Your task to perform on an android device: toggle improve location accuracy Image 0: 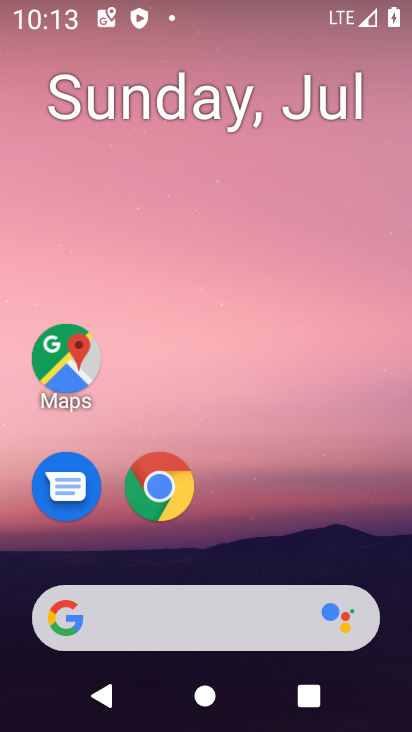
Step 0: press home button
Your task to perform on an android device: toggle improve location accuracy Image 1: 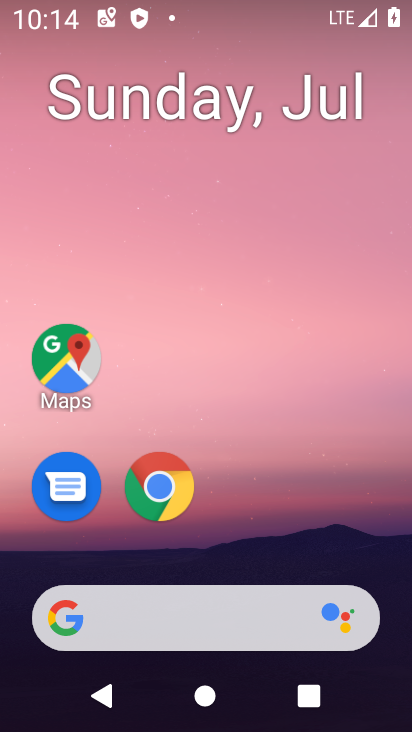
Step 1: drag from (349, 547) to (373, 113)
Your task to perform on an android device: toggle improve location accuracy Image 2: 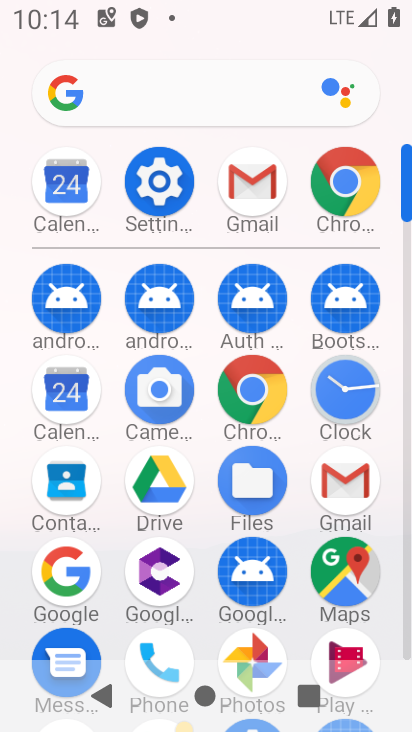
Step 2: click (168, 198)
Your task to perform on an android device: toggle improve location accuracy Image 3: 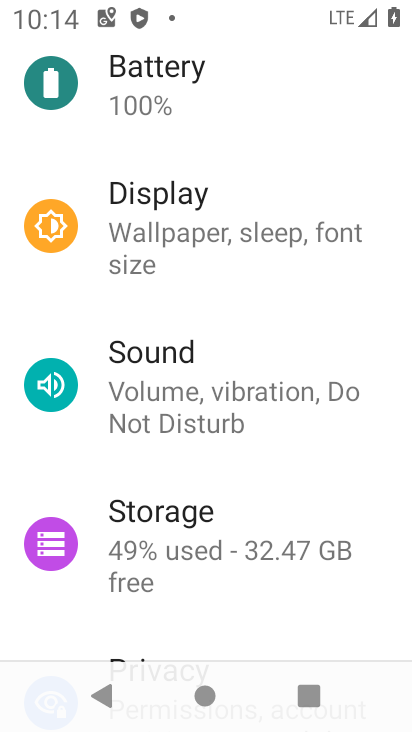
Step 3: drag from (370, 146) to (370, 263)
Your task to perform on an android device: toggle improve location accuracy Image 4: 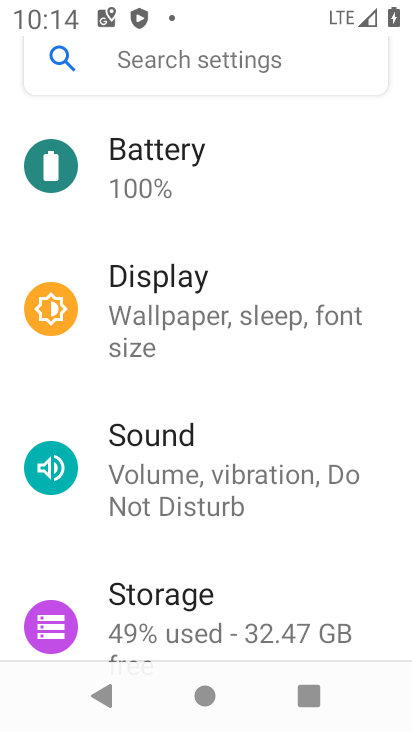
Step 4: drag from (362, 146) to (359, 283)
Your task to perform on an android device: toggle improve location accuracy Image 5: 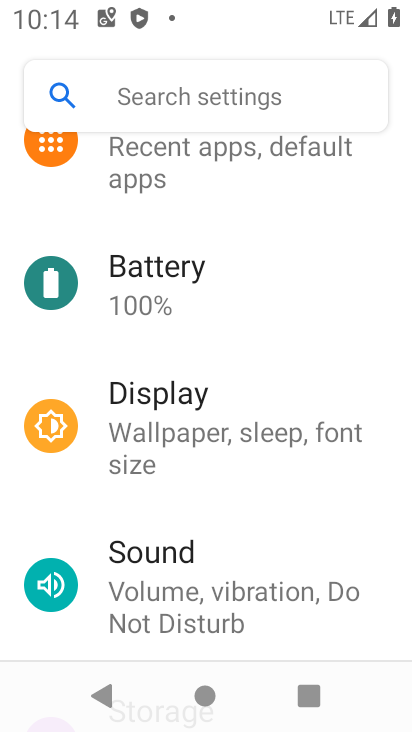
Step 5: drag from (363, 172) to (363, 311)
Your task to perform on an android device: toggle improve location accuracy Image 6: 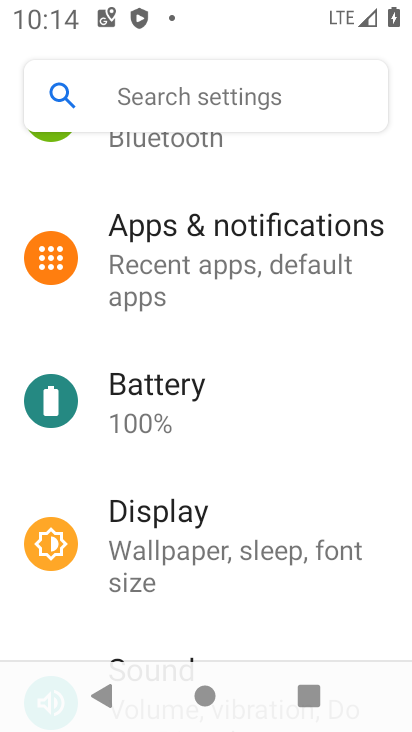
Step 6: drag from (363, 168) to (363, 345)
Your task to perform on an android device: toggle improve location accuracy Image 7: 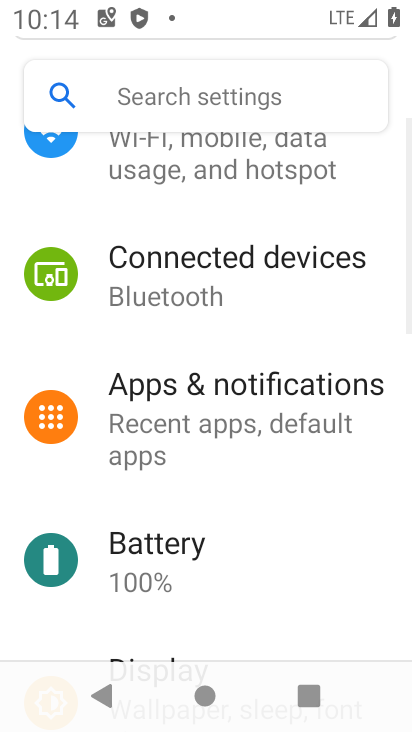
Step 7: drag from (359, 330) to (369, 238)
Your task to perform on an android device: toggle improve location accuracy Image 8: 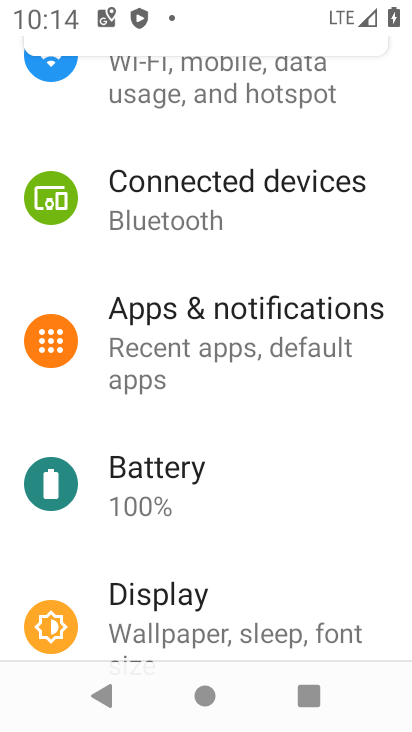
Step 8: drag from (369, 360) to (381, 262)
Your task to perform on an android device: toggle improve location accuracy Image 9: 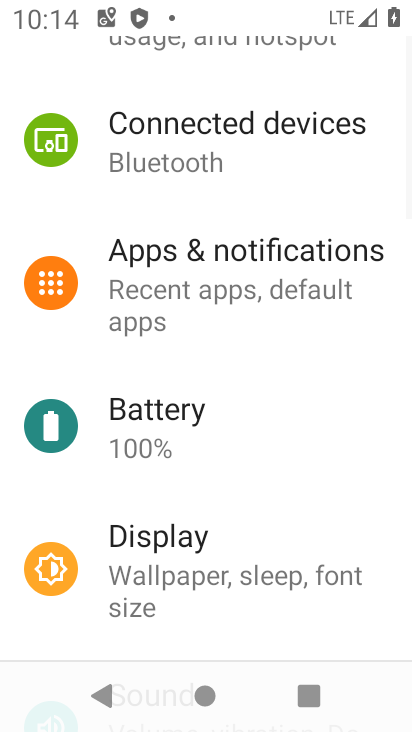
Step 9: drag from (362, 360) to (363, 269)
Your task to perform on an android device: toggle improve location accuracy Image 10: 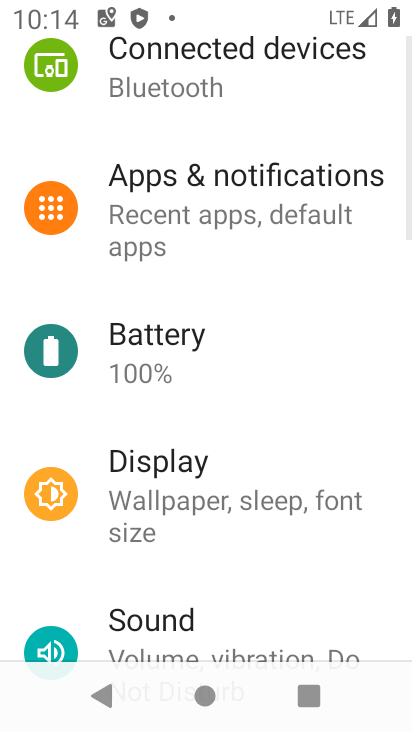
Step 10: drag from (348, 376) to (356, 282)
Your task to perform on an android device: toggle improve location accuracy Image 11: 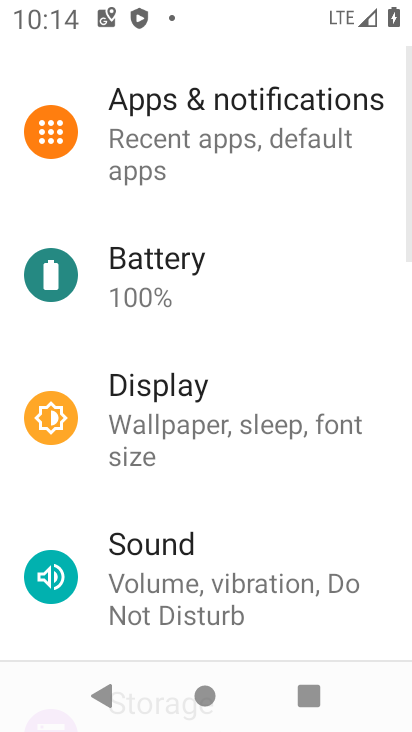
Step 11: drag from (341, 371) to (337, 261)
Your task to perform on an android device: toggle improve location accuracy Image 12: 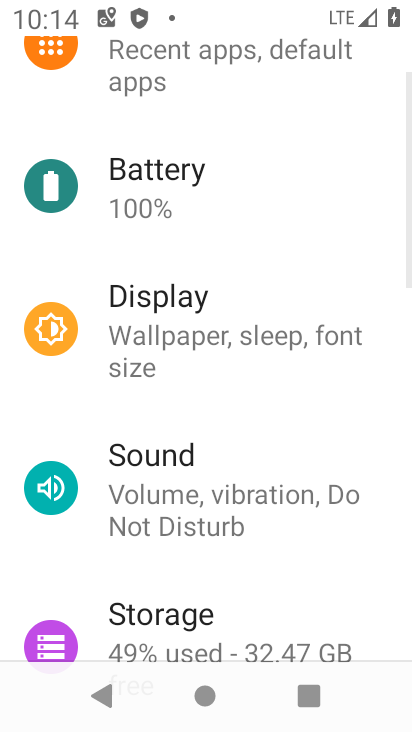
Step 12: drag from (337, 407) to (333, 277)
Your task to perform on an android device: toggle improve location accuracy Image 13: 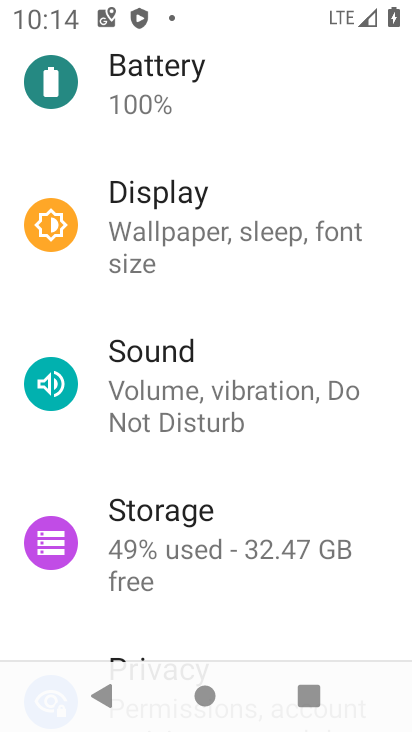
Step 13: drag from (324, 383) to (314, 284)
Your task to perform on an android device: toggle improve location accuracy Image 14: 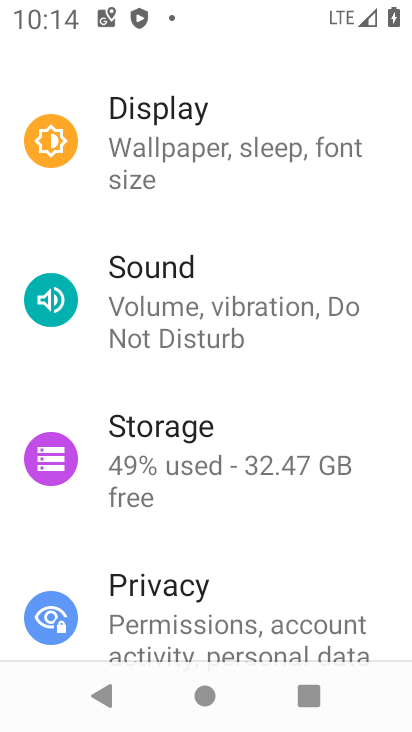
Step 14: drag from (328, 469) to (342, 340)
Your task to perform on an android device: toggle improve location accuracy Image 15: 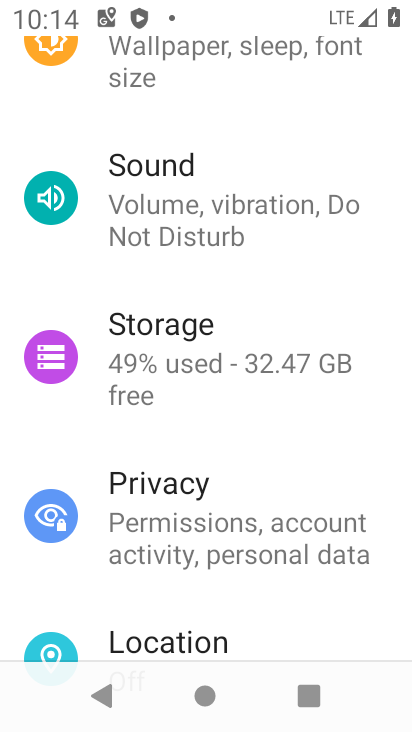
Step 15: drag from (374, 480) to (377, 344)
Your task to perform on an android device: toggle improve location accuracy Image 16: 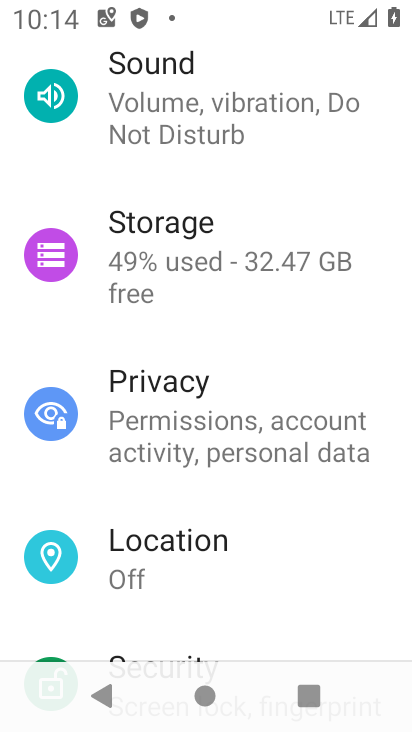
Step 16: drag from (326, 549) to (320, 421)
Your task to perform on an android device: toggle improve location accuracy Image 17: 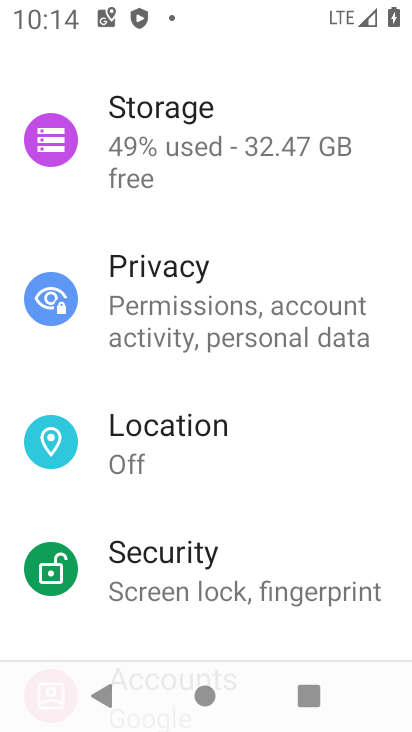
Step 17: click (273, 461)
Your task to perform on an android device: toggle improve location accuracy Image 18: 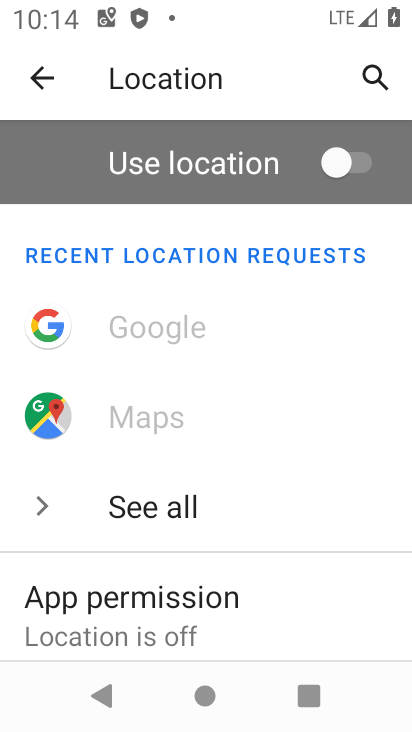
Step 18: drag from (291, 561) to (292, 477)
Your task to perform on an android device: toggle improve location accuracy Image 19: 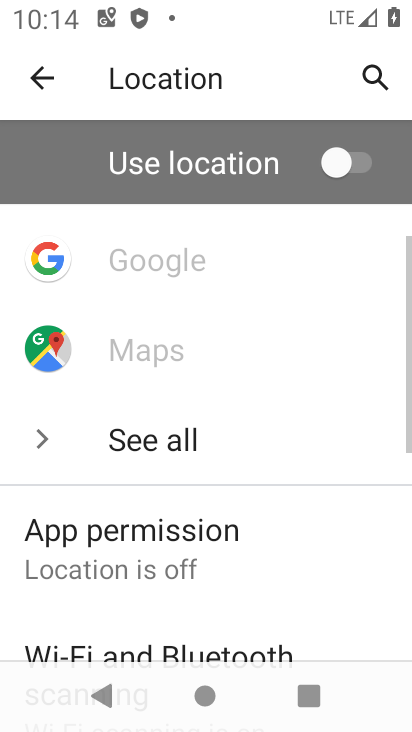
Step 19: drag from (305, 582) to (302, 469)
Your task to perform on an android device: toggle improve location accuracy Image 20: 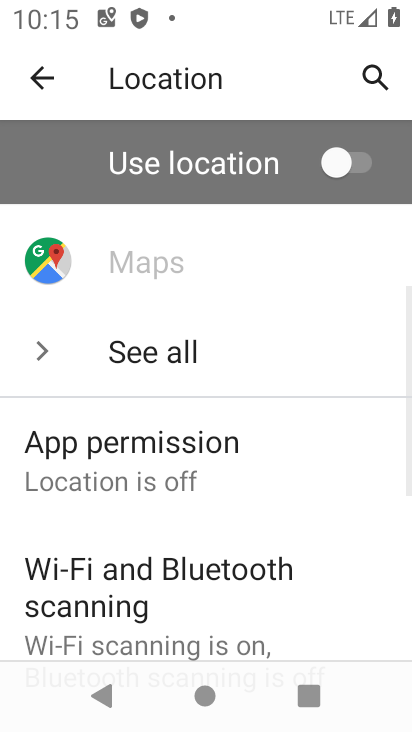
Step 20: drag from (307, 574) to (311, 445)
Your task to perform on an android device: toggle improve location accuracy Image 21: 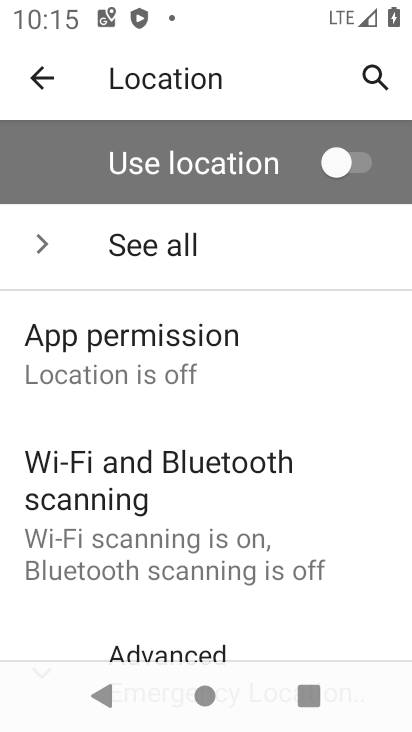
Step 21: drag from (342, 607) to (335, 458)
Your task to perform on an android device: toggle improve location accuracy Image 22: 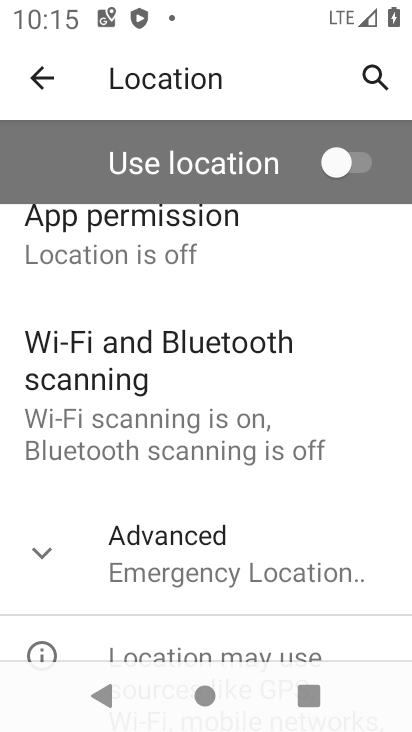
Step 22: drag from (317, 590) to (311, 444)
Your task to perform on an android device: toggle improve location accuracy Image 23: 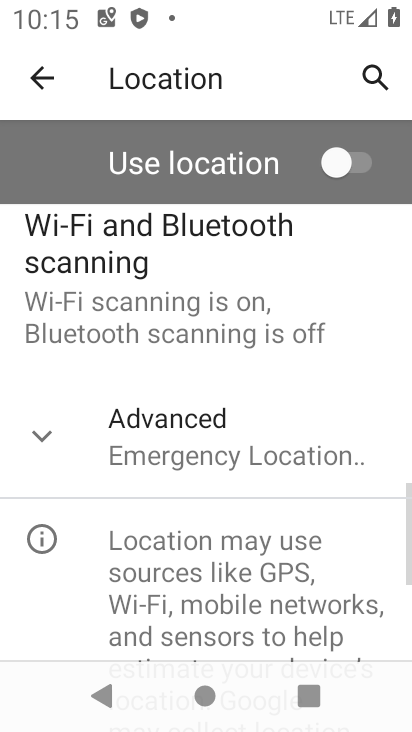
Step 23: click (311, 449)
Your task to perform on an android device: toggle improve location accuracy Image 24: 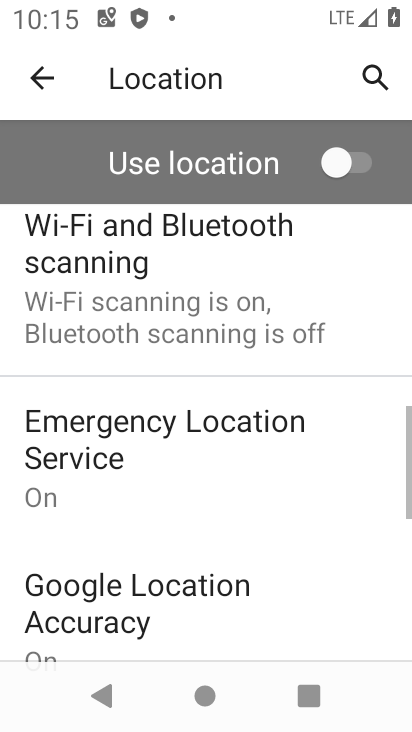
Step 24: drag from (309, 576) to (314, 490)
Your task to perform on an android device: toggle improve location accuracy Image 25: 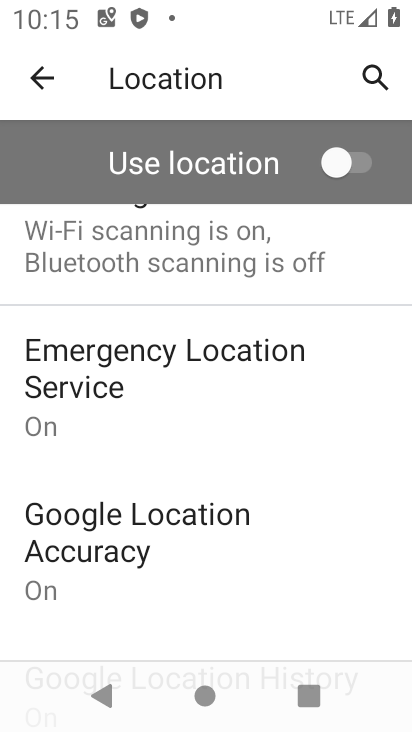
Step 25: drag from (322, 582) to (323, 497)
Your task to perform on an android device: toggle improve location accuracy Image 26: 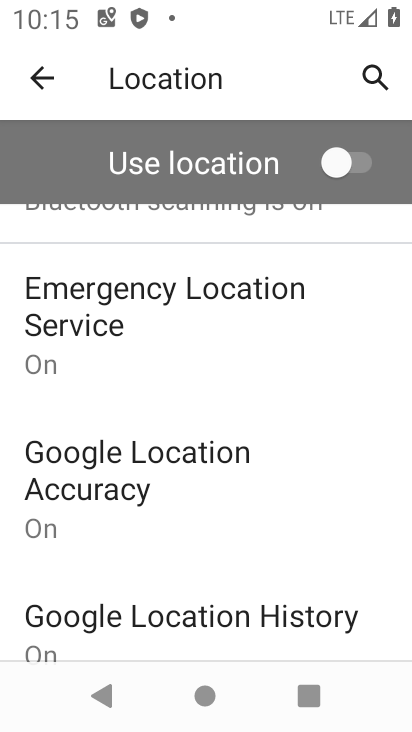
Step 26: click (272, 501)
Your task to perform on an android device: toggle improve location accuracy Image 27: 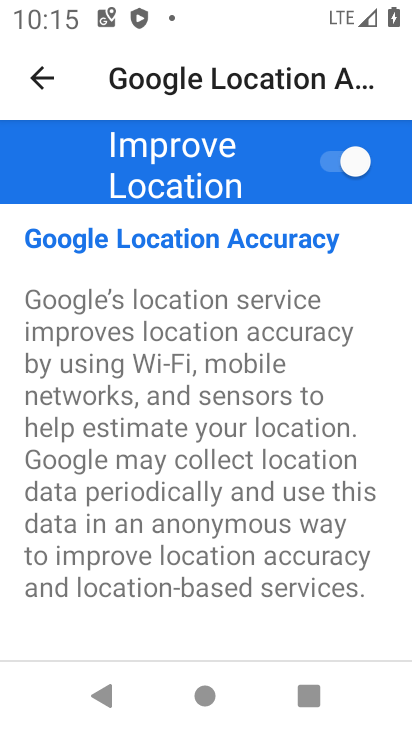
Step 27: drag from (323, 588) to (331, 451)
Your task to perform on an android device: toggle improve location accuracy Image 28: 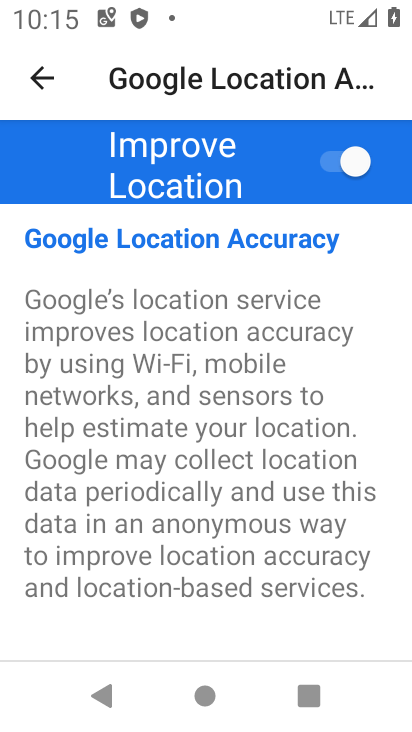
Step 28: click (331, 161)
Your task to perform on an android device: toggle improve location accuracy Image 29: 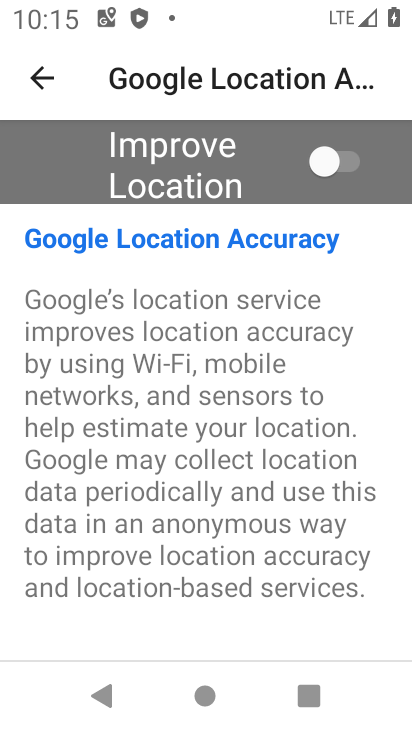
Step 29: task complete